Your task to perform on an android device: Go to Android settings Image 0: 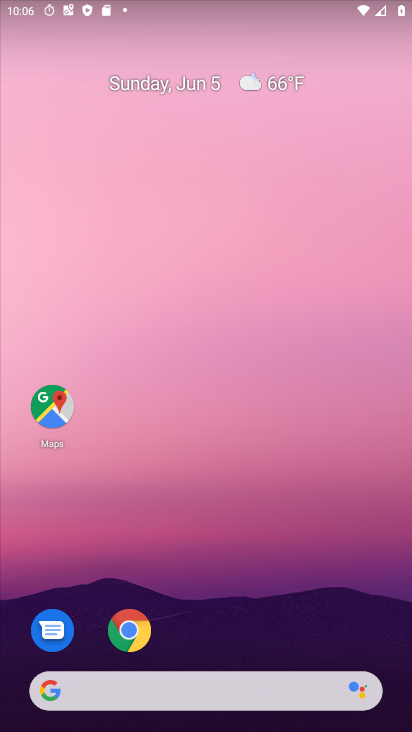
Step 0: drag from (210, 728) to (200, 123)
Your task to perform on an android device: Go to Android settings Image 1: 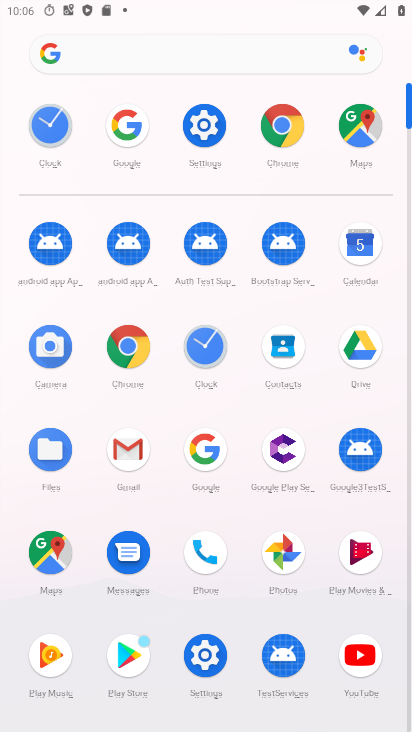
Step 1: click (209, 135)
Your task to perform on an android device: Go to Android settings Image 2: 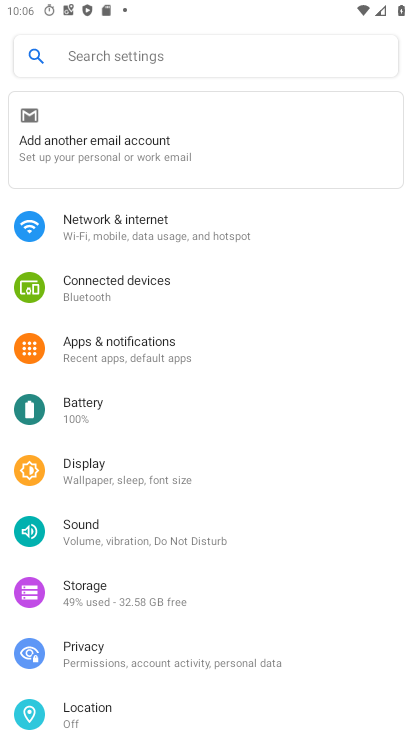
Step 2: task complete